Your task to perform on an android device: Go to battery settings Image 0: 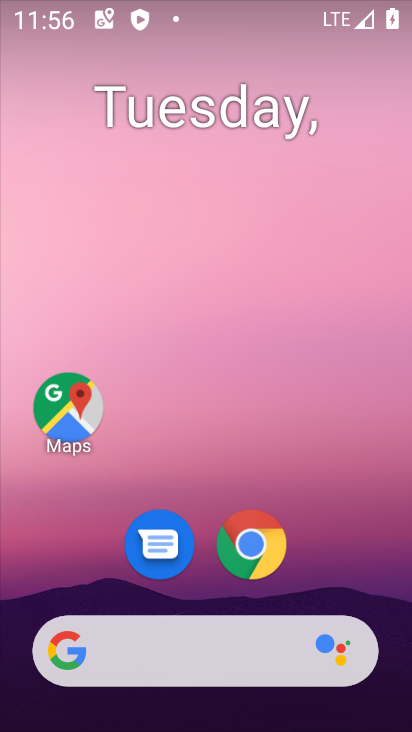
Step 0: drag from (387, 634) to (310, 117)
Your task to perform on an android device: Go to battery settings Image 1: 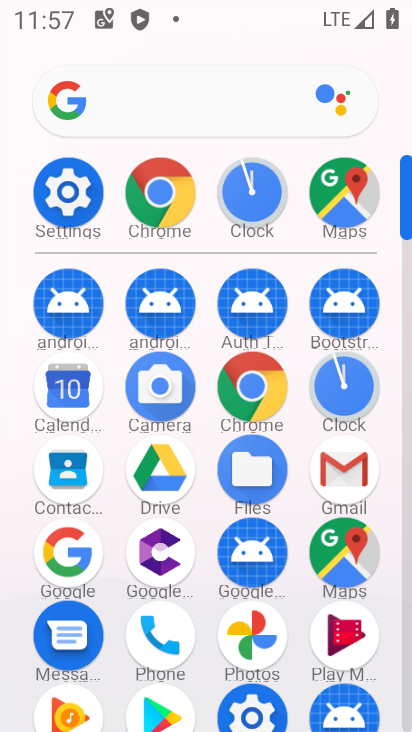
Step 1: click (79, 174)
Your task to perform on an android device: Go to battery settings Image 2: 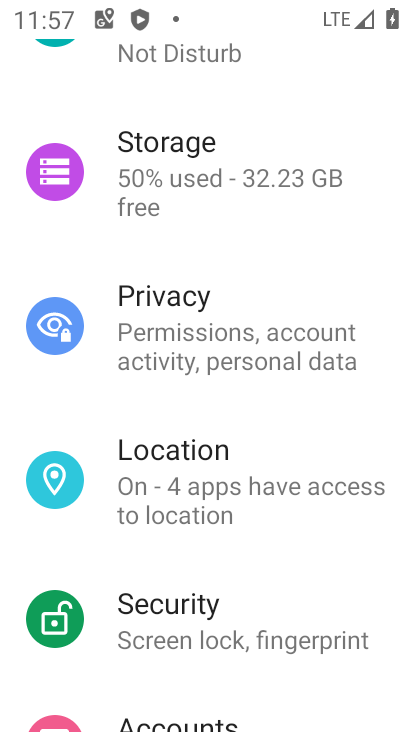
Step 2: drag from (172, 291) to (183, 638)
Your task to perform on an android device: Go to battery settings Image 3: 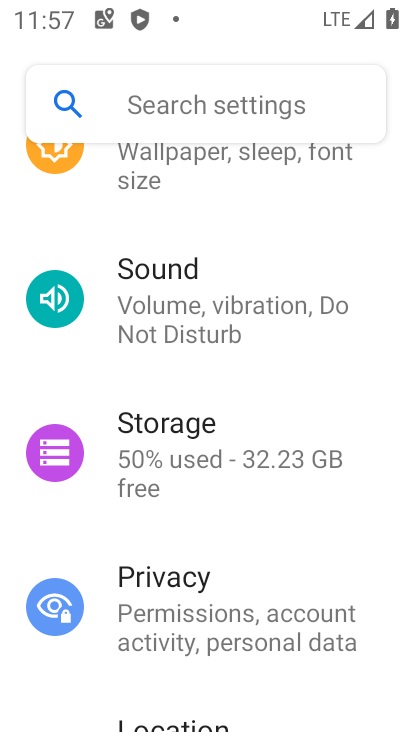
Step 3: drag from (157, 234) to (193, 527)
Your task to perform on an android device: Go to battery settings Image 4: 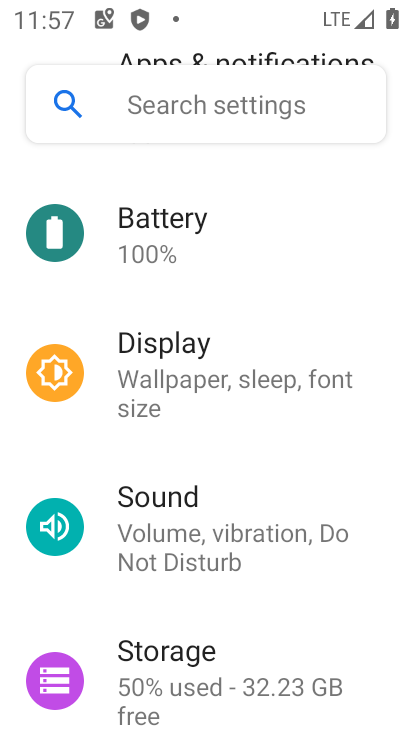
Step 4: click (228, 225)
Your task to perform on an android device: Go to battery settings Image 5: 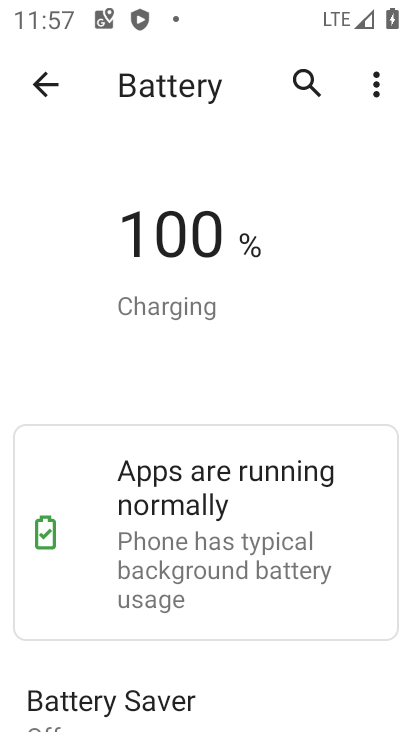
Step 5: task complete